Your task to perform on an android device: Open location settings Image 0: 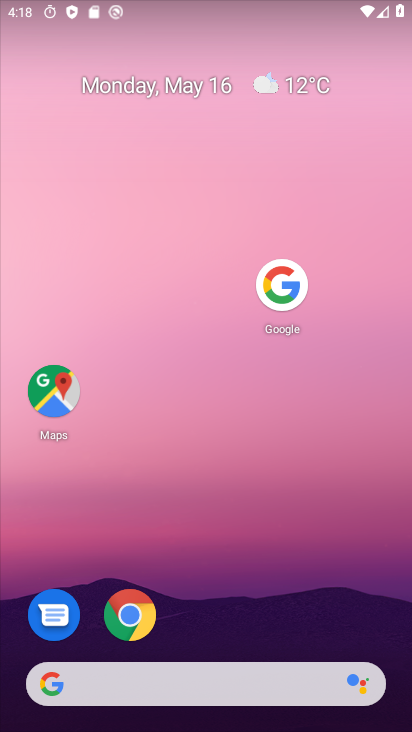
Step 0: drag from (205, 665) to (175, 24)
Your task to perform on an android device: Open location settings Image 1: 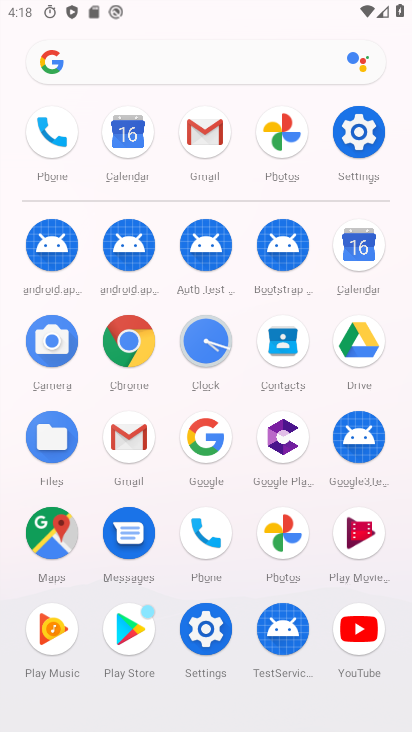
Step 1: click (207, 636)
Your task to perform on an android device: Open location settings Image 2: 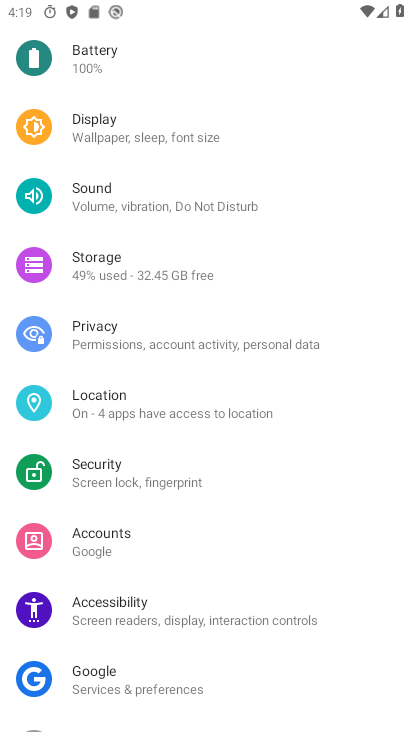
Step 2: click (96, 414)
Your task to perform on an android device: Open location settings Image 3: 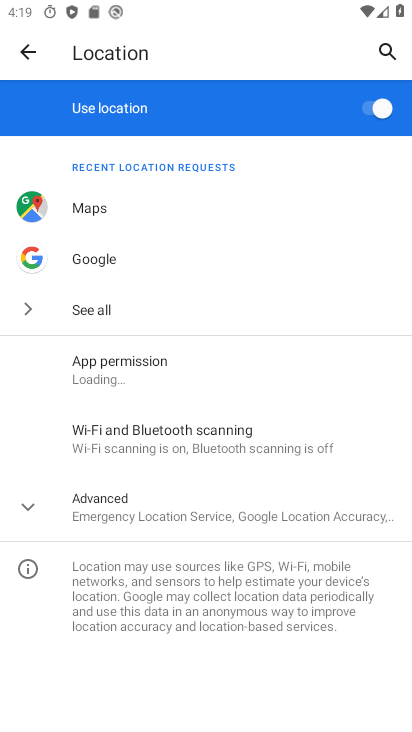
Step 3: click (138, 488)
Your task to perform on an android device: Open location settings Image 4: 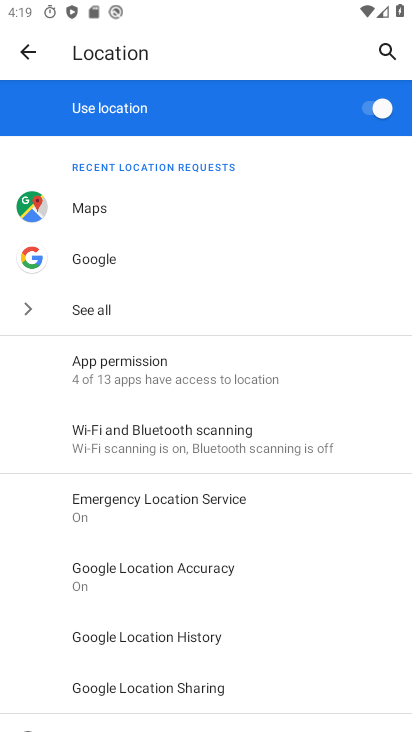
Step 4: task complete